Your task to perform on an android device: Open Google Chrome Image 0: 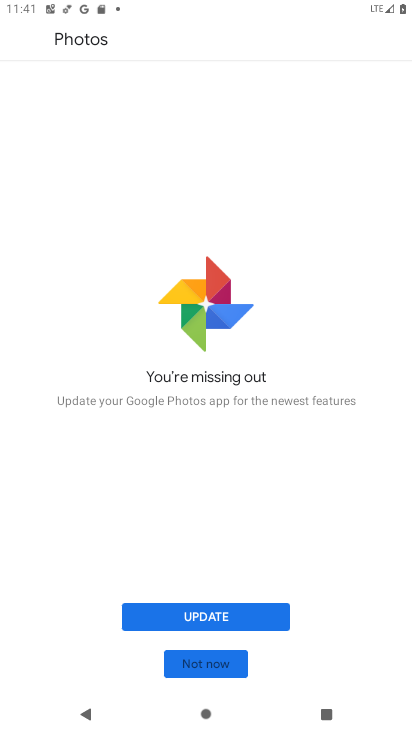
Step 0: press home button
Your task to perform on an android device: Open Google Chrome Image 1: 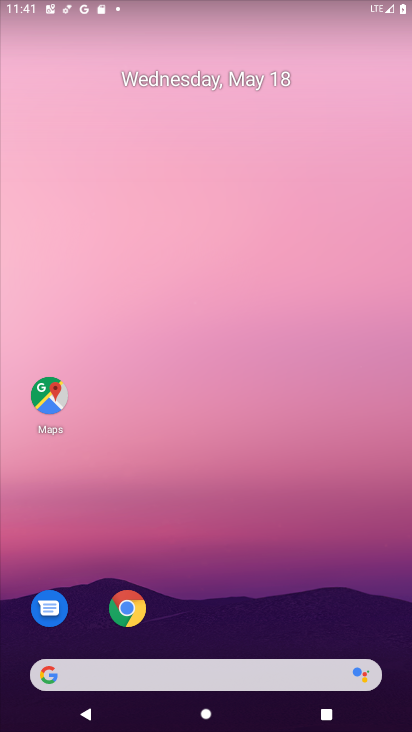
Step 1: click (113, 605)
Your task to perform on an android device: Open Google Chrome Image 2: 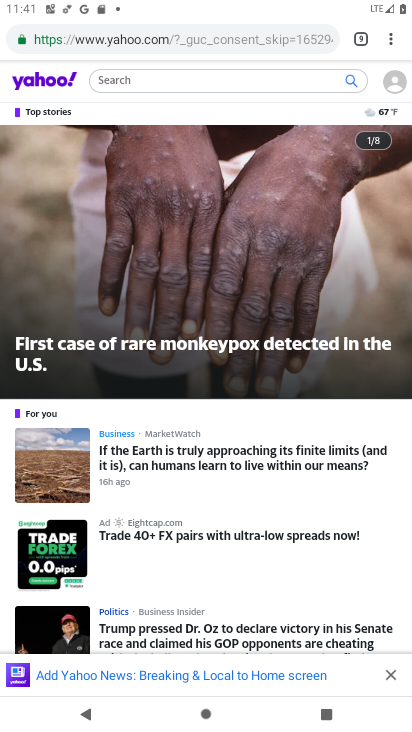
Step 2: task complete